Your task to perform on an android device: change the clock display to digital Image 0: 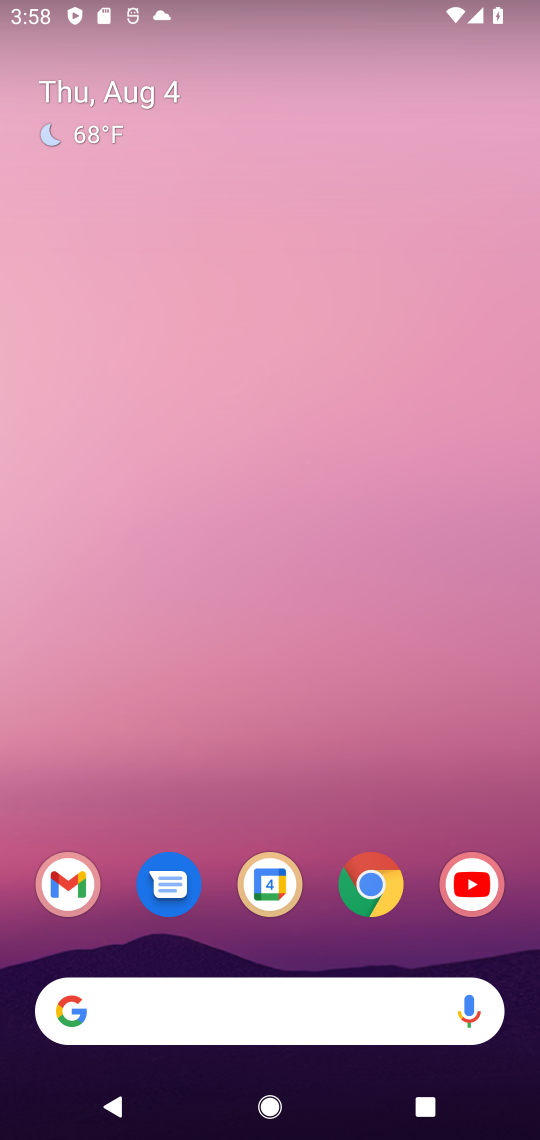
Step 0: drag from (246, 913) to (239, 137)
Your task to perform on an android device: change the clock display to digital Image 1: 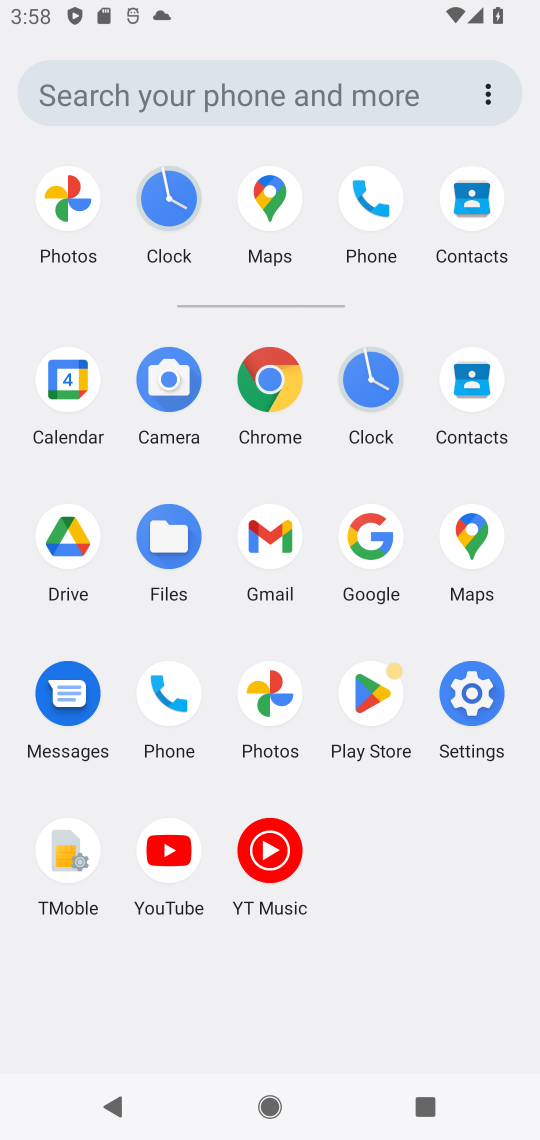
Step 1: click (369, 371)
Your task to perform on an android device: change the clock display to digital Image 2: 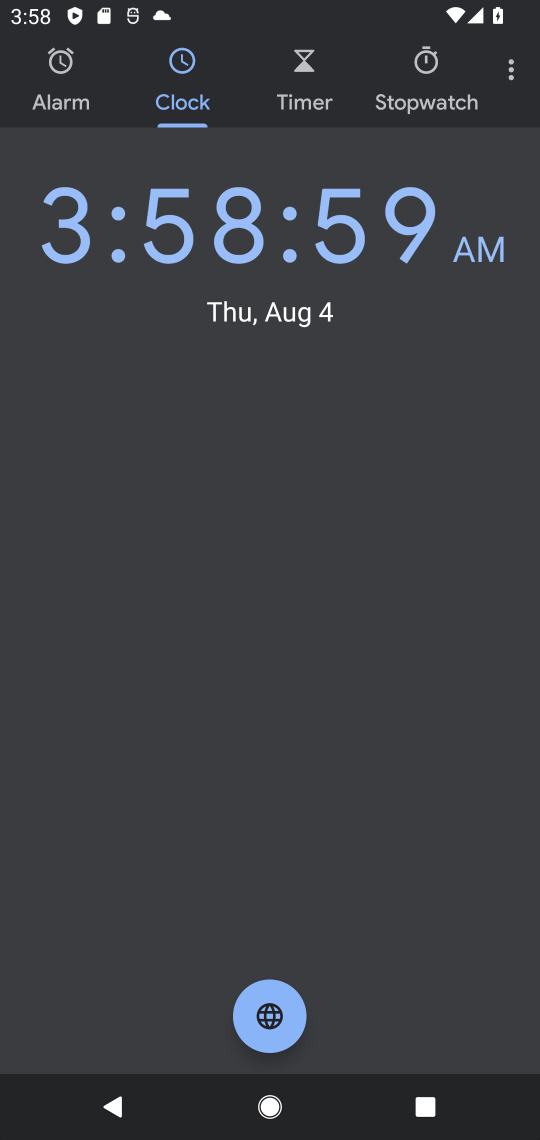
Step 2: click (505, 72)
Your task to perform on an android device: change the clock display to digital Image 3: 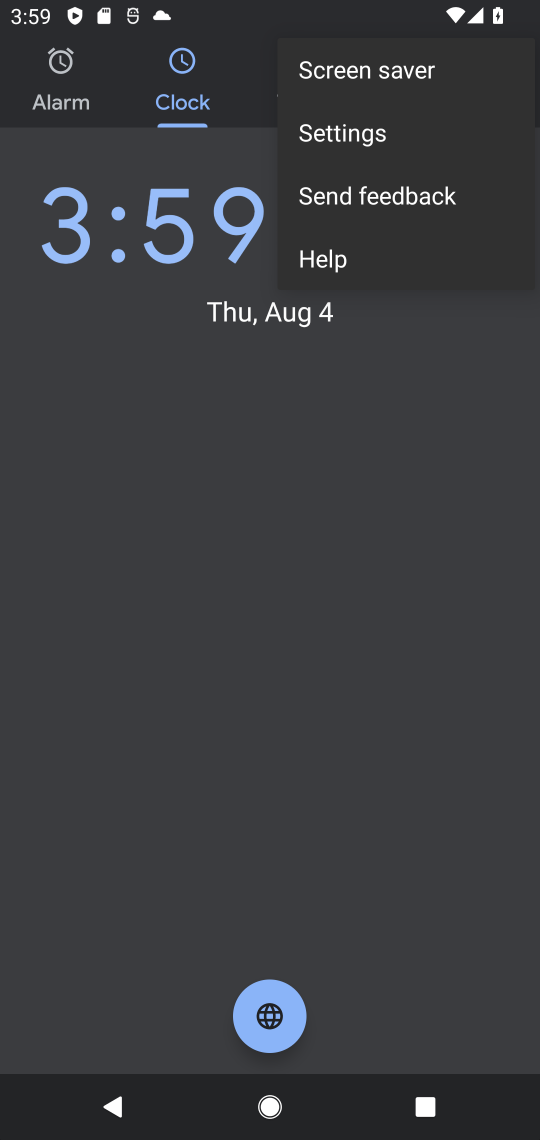
Step 3: click (368, 129)
Your task to perform on an android device: change the clock display to digital Image 4: 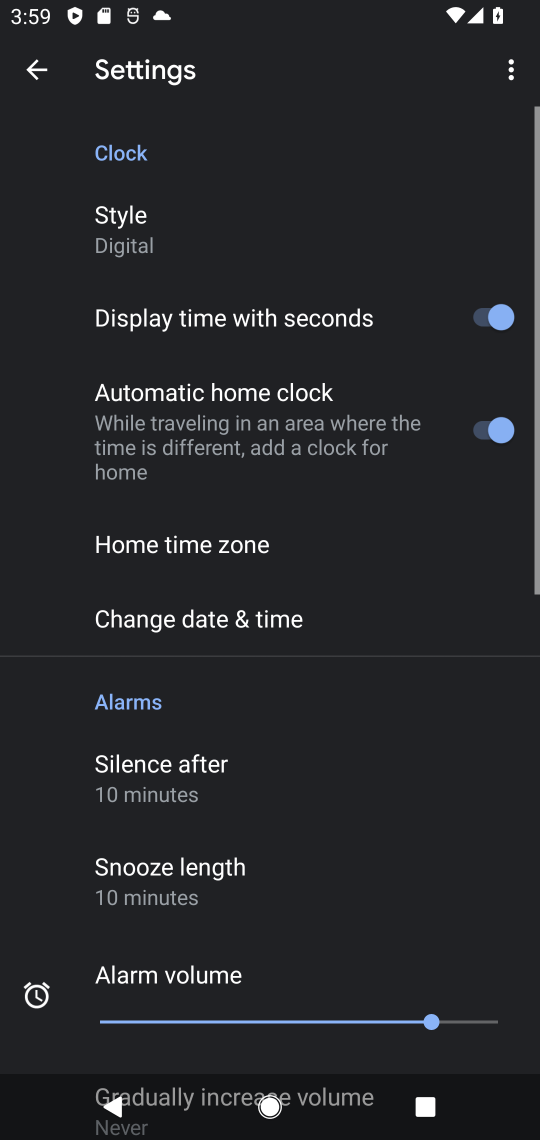
Step 4: click (141, 233)
Your task to perform on an android device: change the clock display to digital Image 5: 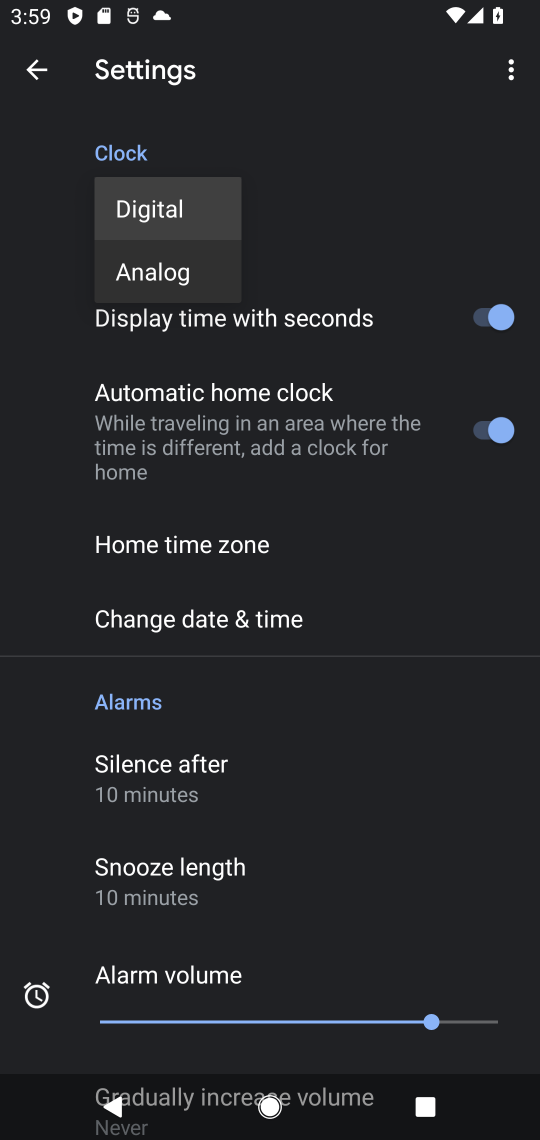
Step 5: click (152, 210)
Your task to perform on an android device: change the clock display to digital Image 6: 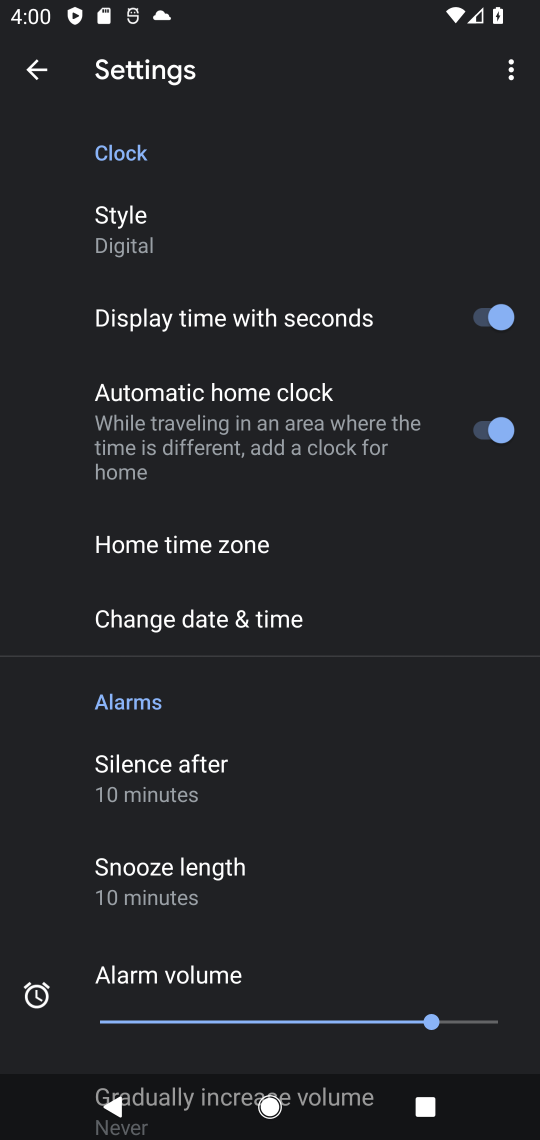
Step 6: task complete